Your task to perform on an android device: How do I get to the nearest T-Mobile Store? Image 0: 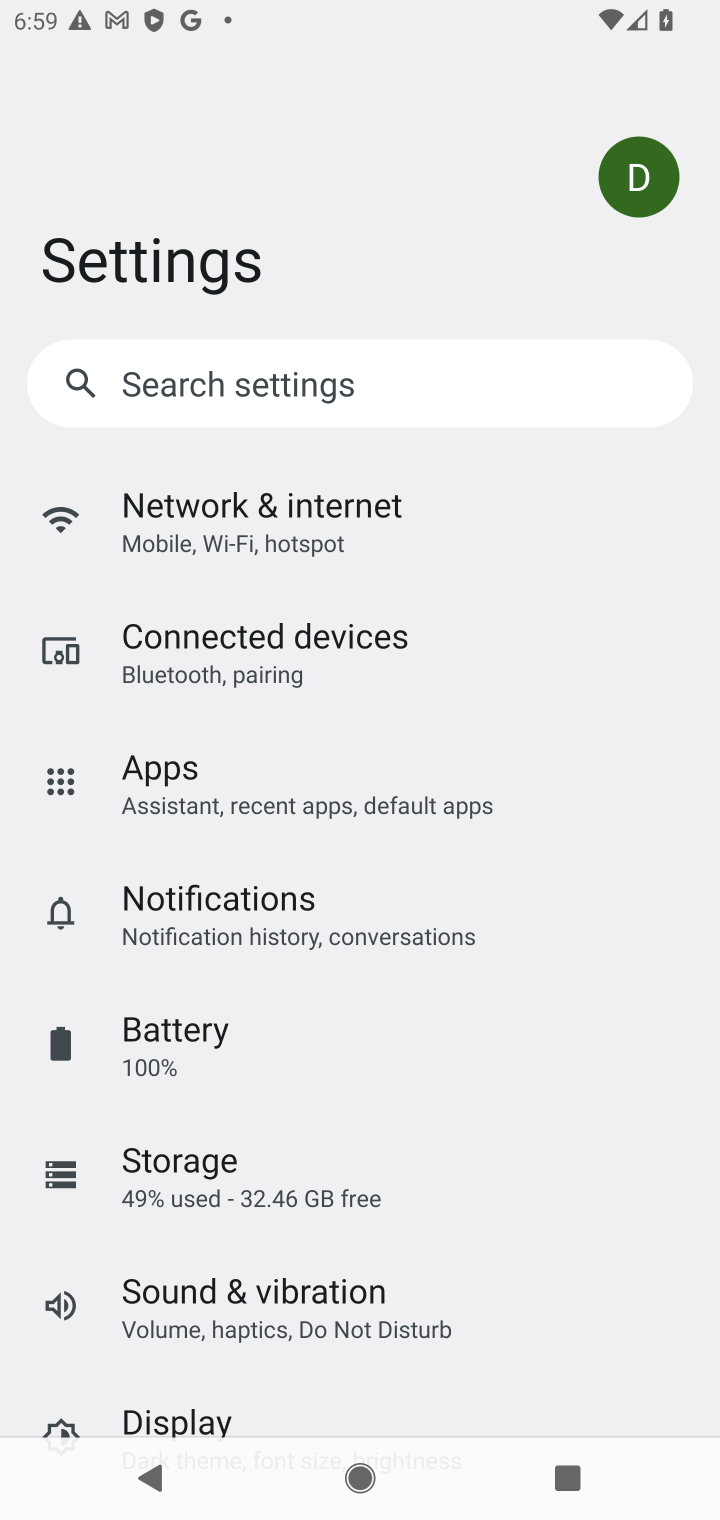
Step 0: press home button
Your task to perform on an android device: How do I get to the nearest T-Mobile Store? Image 1: 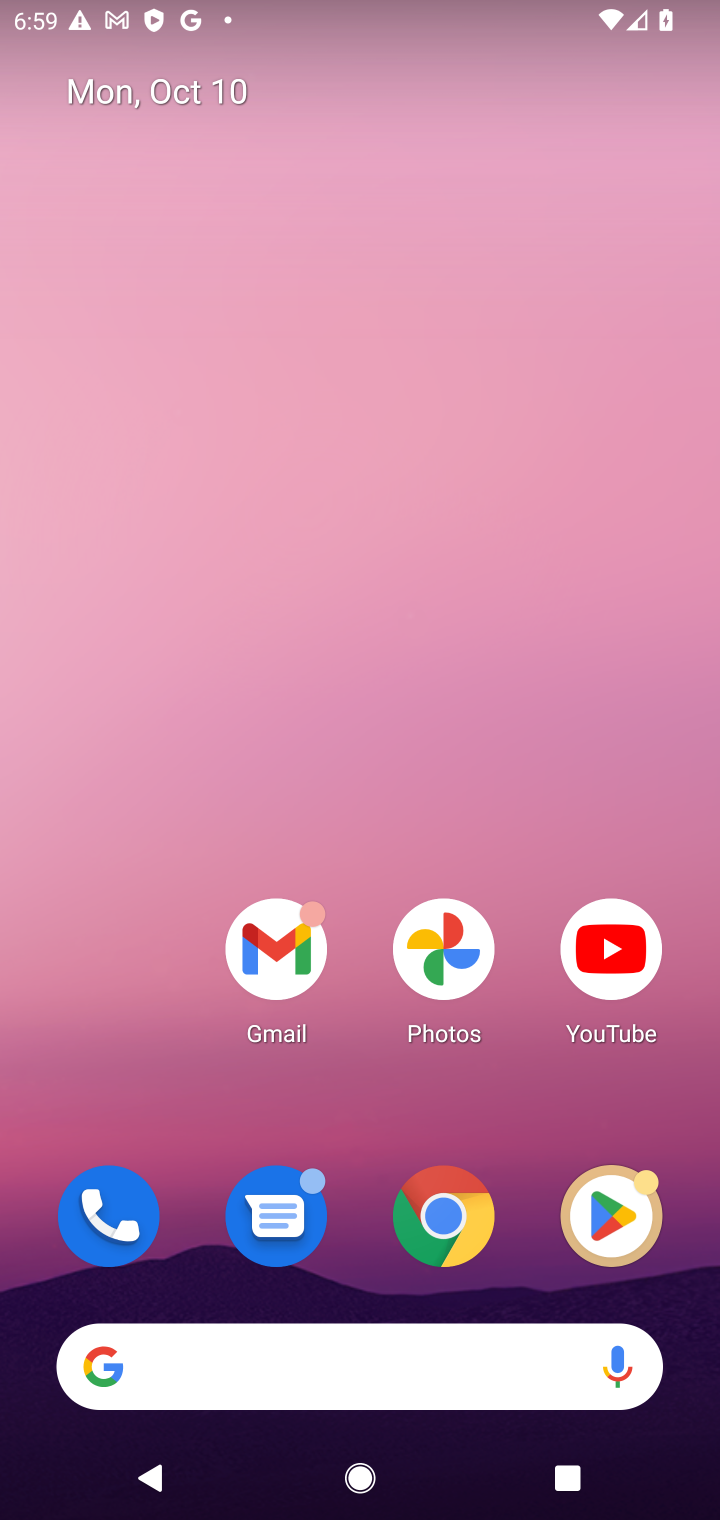
Step 1: drag from (400, 1033) to (515, 501)
Your task to perform on an android device: How do I get to the nearest T-Mobile Store? Image 2: 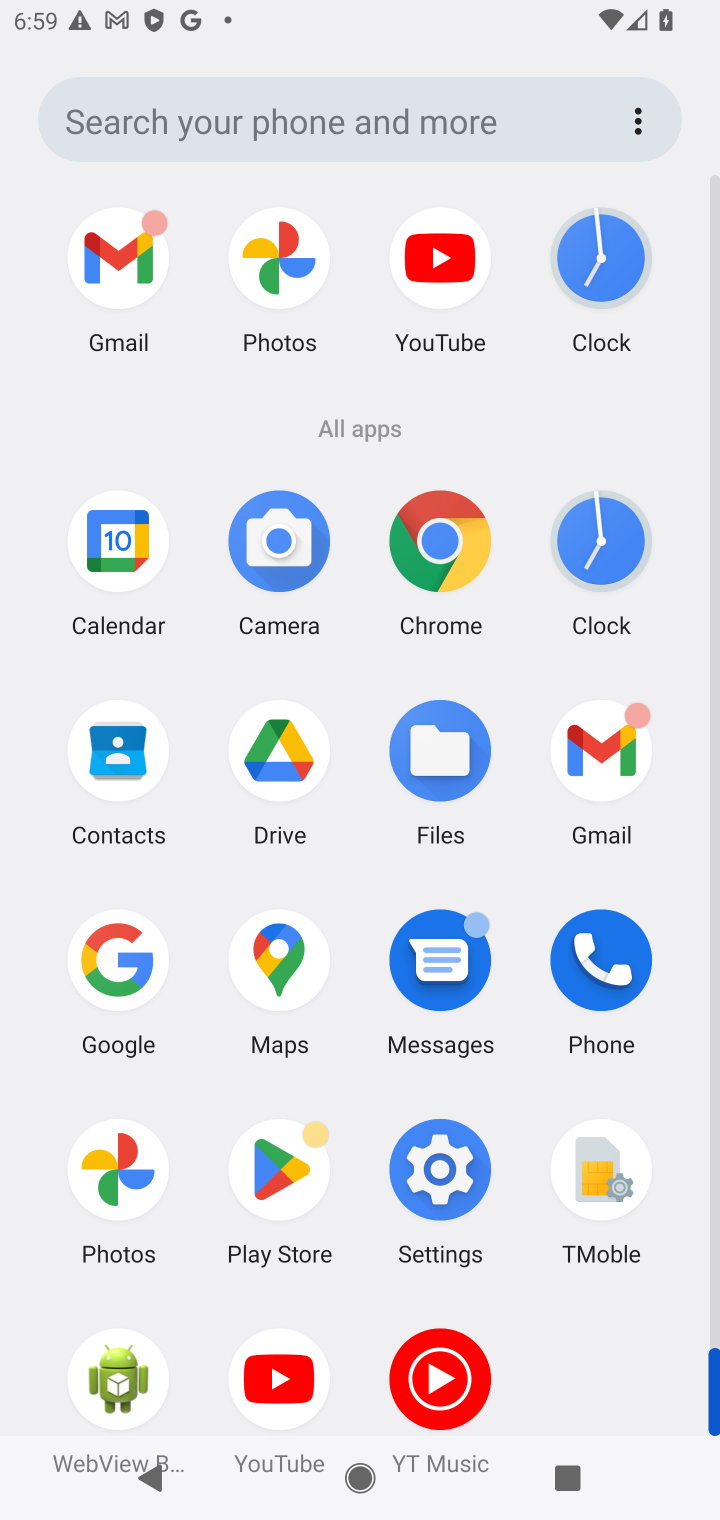
Step 2: click (127, 942)
Your task to perform on an android device: How do I get to the nearest T-Mobile Store? Image 3: 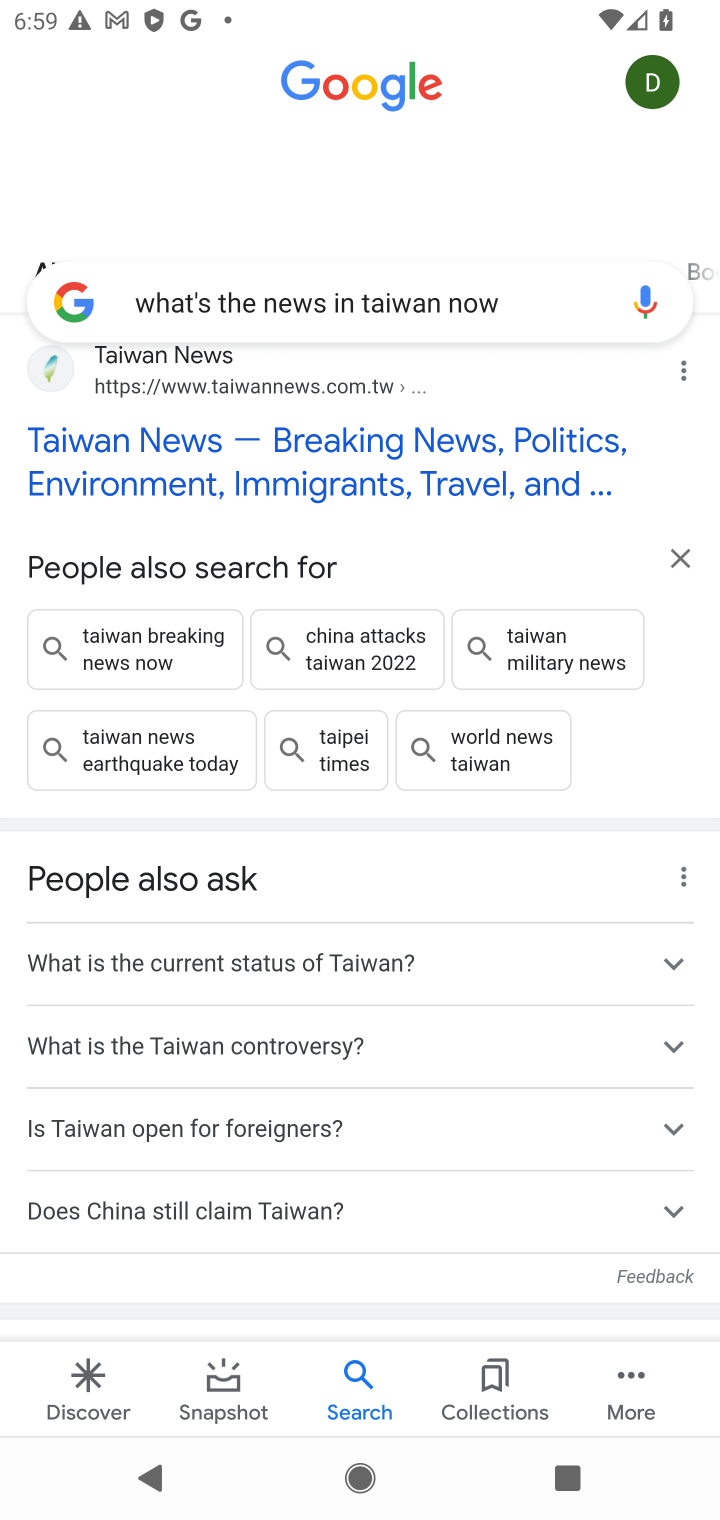
Step 3: click (487, 299)
Your task to perform on an android device: How do I get to the nearest T-Mobile Store? Image 4: 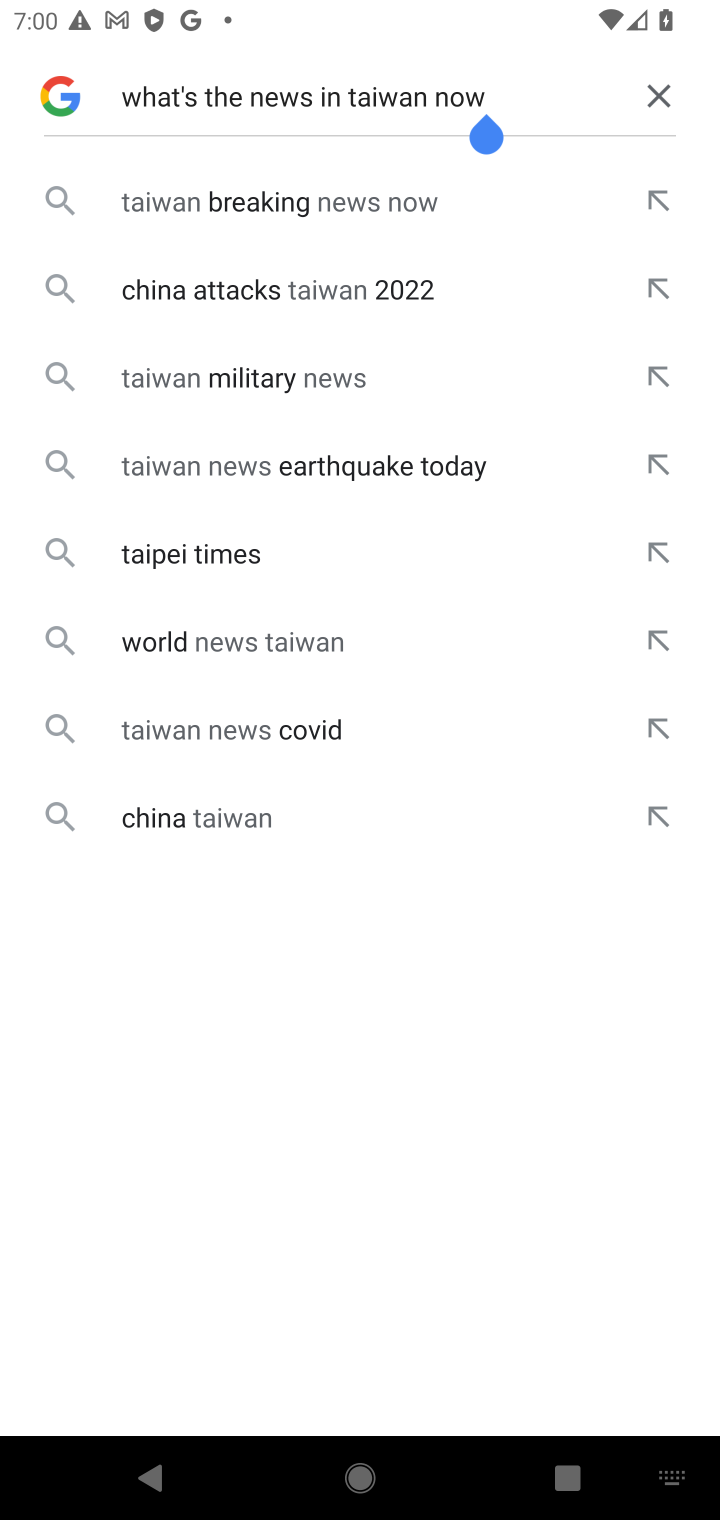
Step 4: click (653, 110)
Your task to perform on an android device: How do I get to the nearest T-Mobile Store? Image 5: 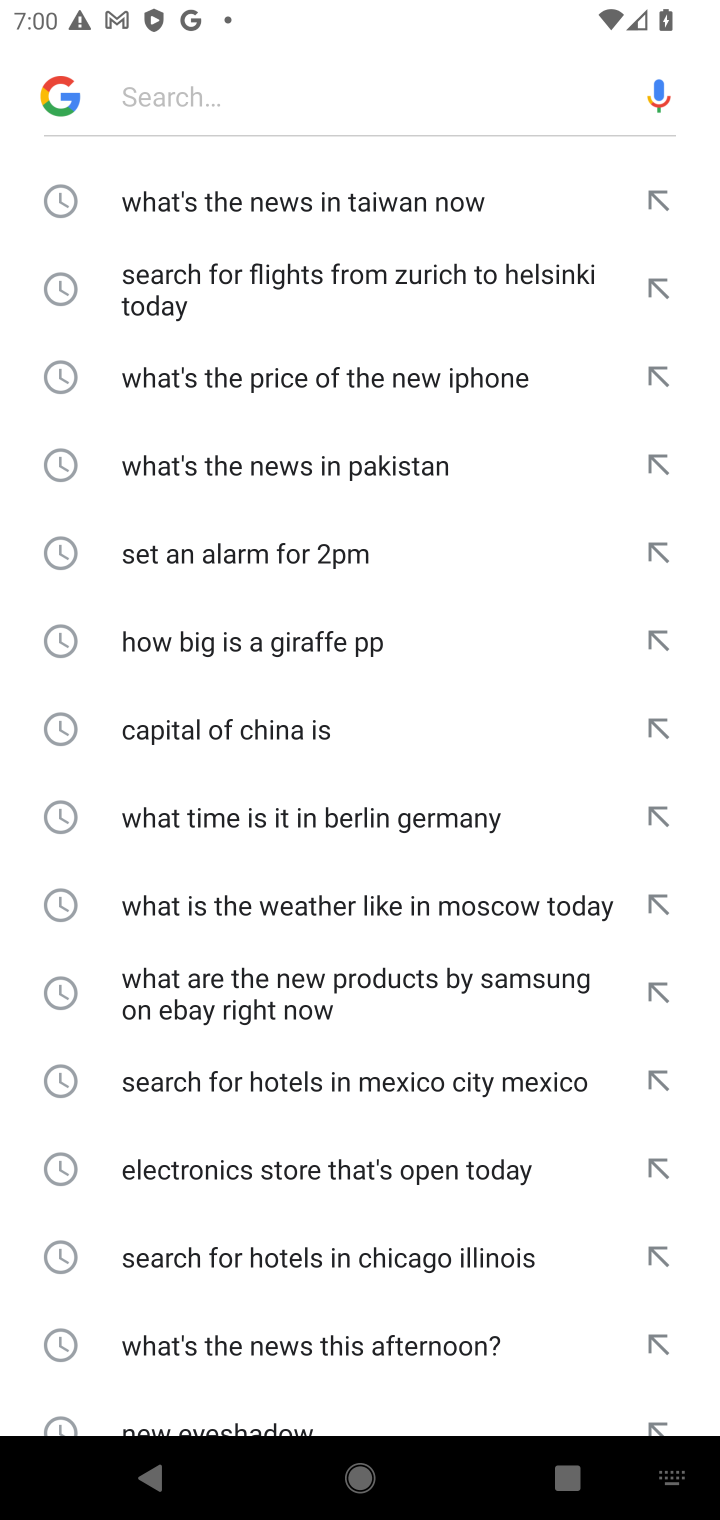
Step 5: type "How do I get to the nearest T-Mobile Store?"
Your task to perform on an android device: How do I get to the nearest T-Mobile Store? Image 6: 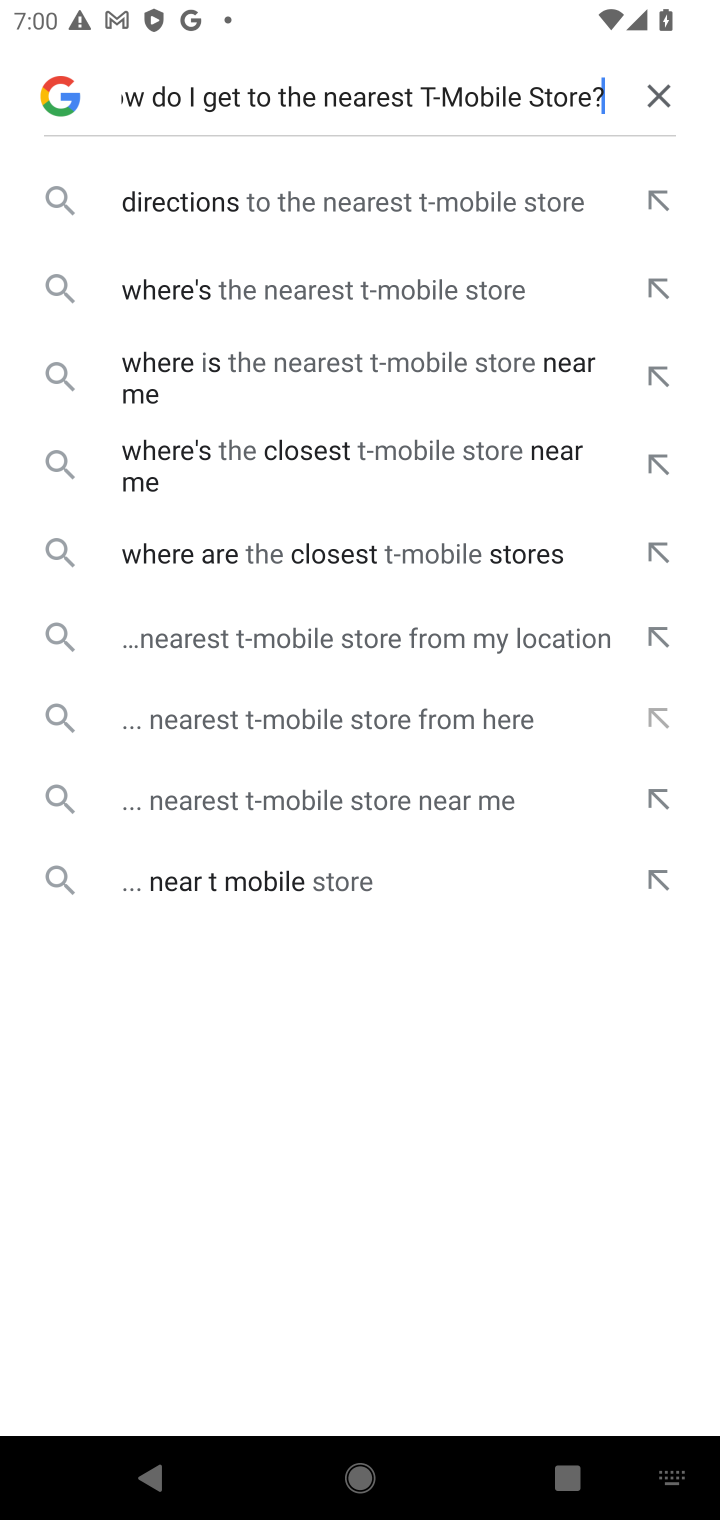
Step 6: click (322, 211)
Your task to perform on an android device: How do I get to the nearest T-Mobile Store? Image 7: 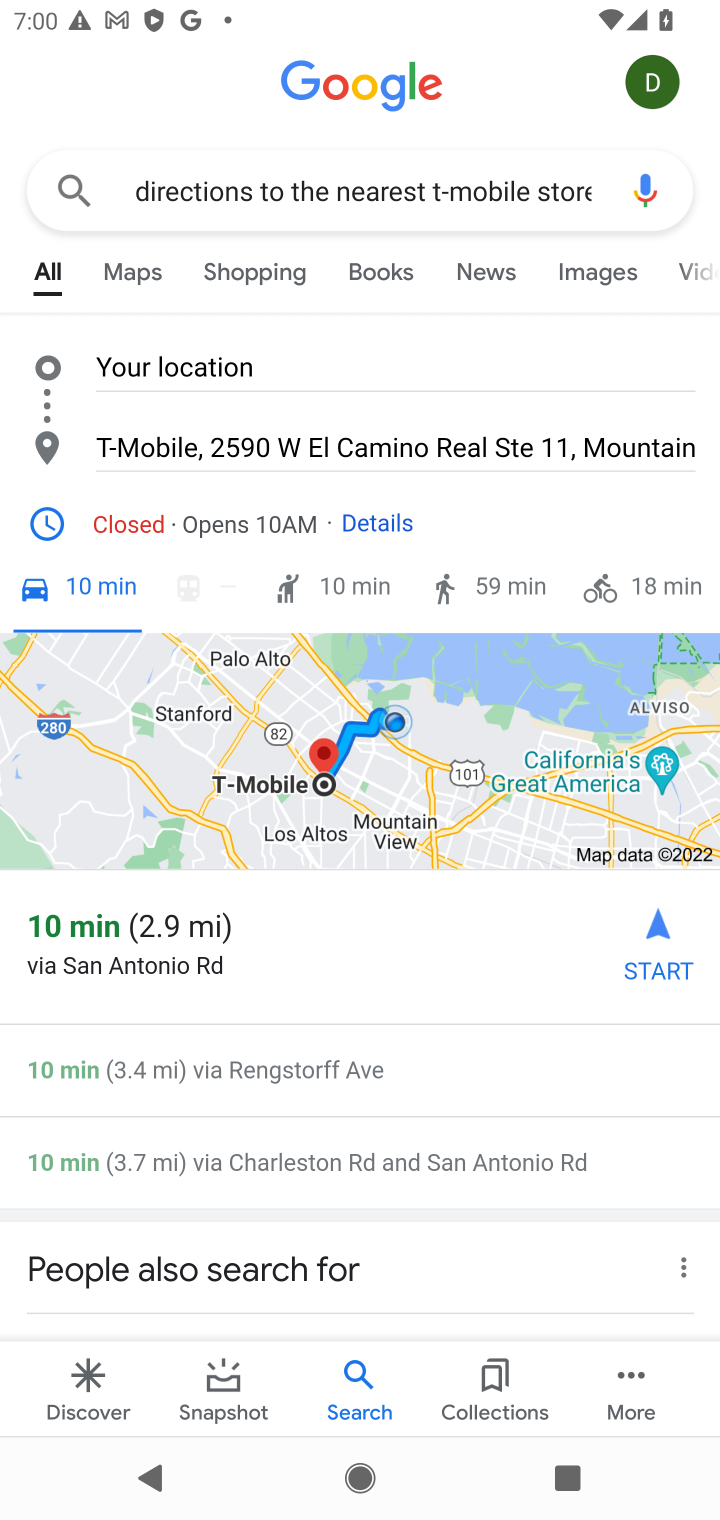
Step 7: task complete